Your task to perform on an android device: Open Chrome and go to settings Image 0: 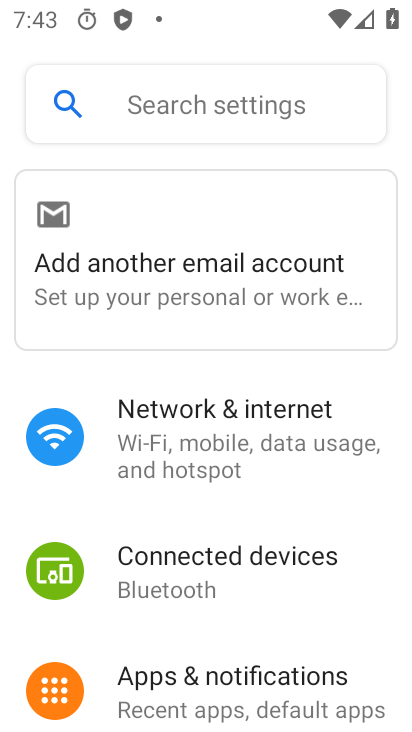
Step 0: press home button
Your task to perform on an android device: Open Chrome and go to settings Image 1: 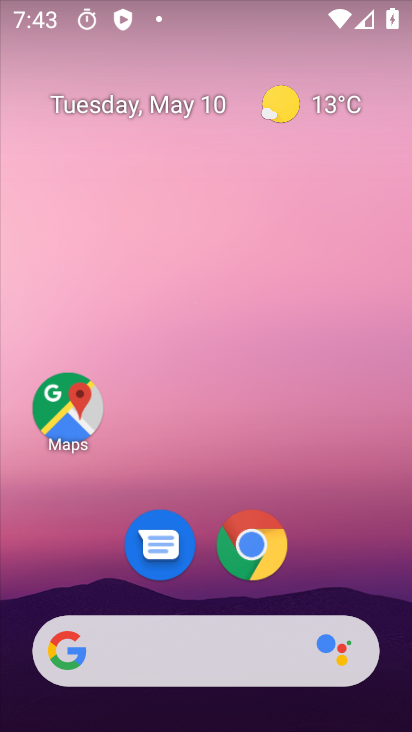
Step 1: click (251, 541)
Your task to perform on an android device: Open Chrome and go to settings Image 2: 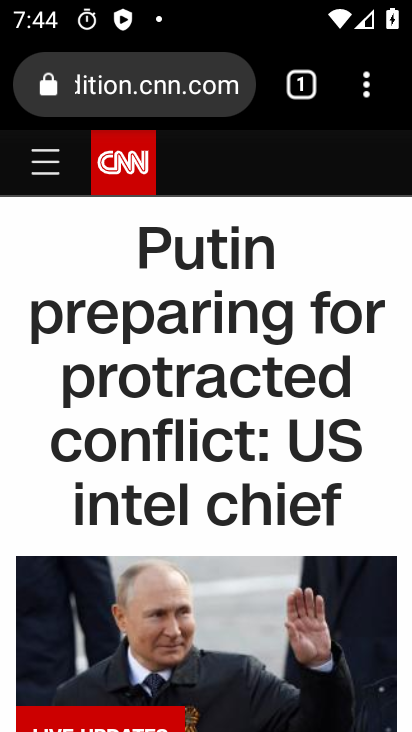
Step 2: click (364, 89)
Your task to perform on an android device: Open Chrome and go to settings Image 3: 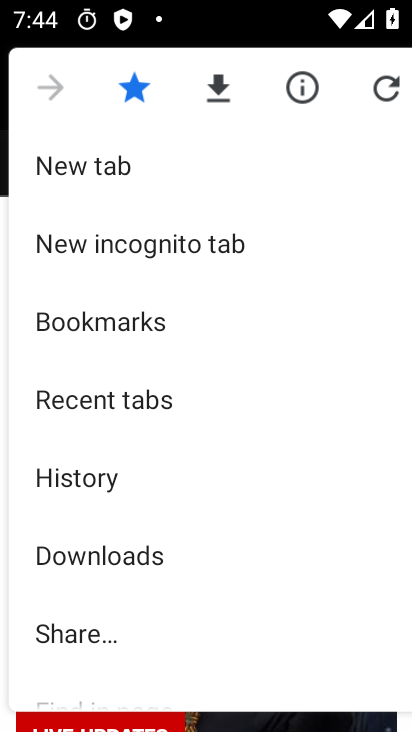
Step 3: drag from (159, 620) to (187, 129)
Your task to perform on an android device: Open Chrome and go to settings Image 4: 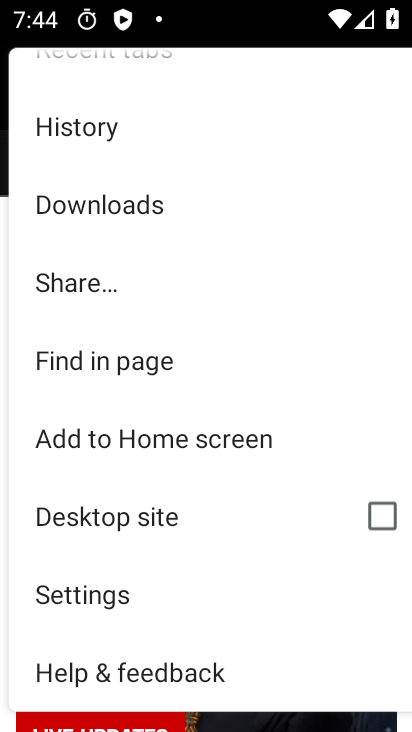
Step 4: click (138, 588)
Your task to perform on an android device: Open Chrome and go to settings Image 5: 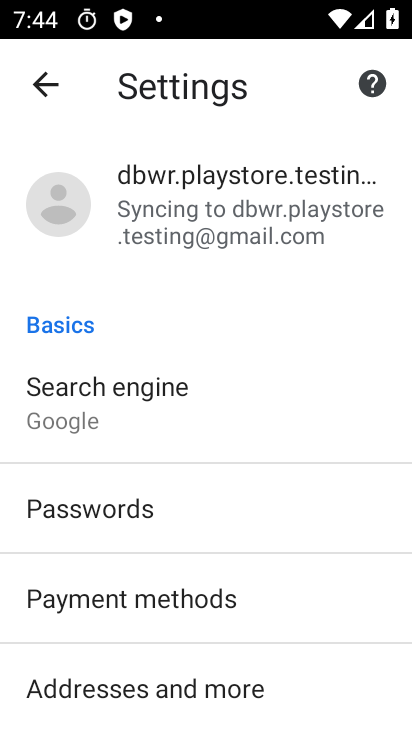
Step 5: task complete